Your task to perform on an android device: stop showing notifications on the lock screen Image 0: 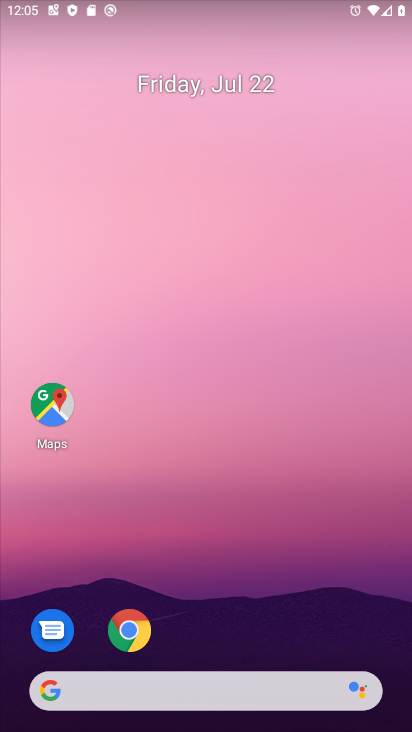
Step 0: drag from (243, 624) to (116, 114)
Your task to perform on an android device: stop showing notifications on the lock screen Image 1: 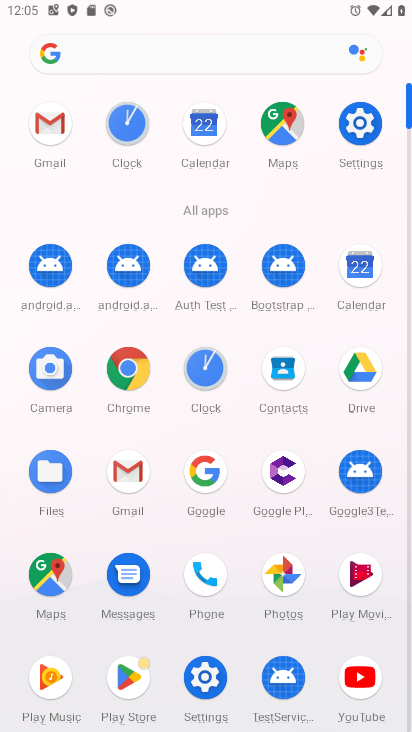
Step 1: click (361, 136)
Your task to perform on an android device: stop showing notifications on the lock screen Image 2: 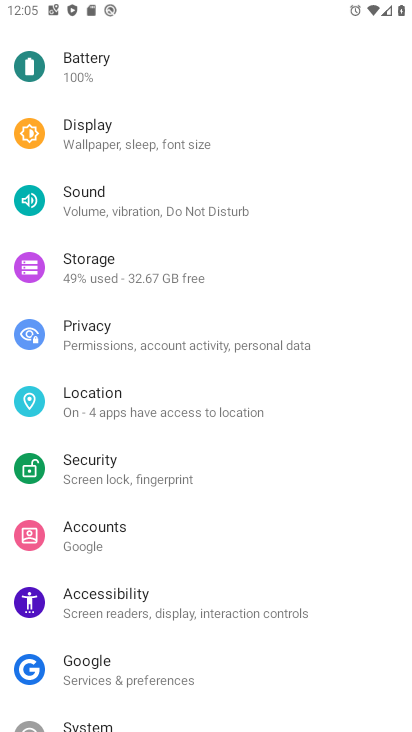
Step 2: drag from (243, 184) to (238, 439)
Your task to perform on an android device: stop showing notifications on the lock screen Image 3: 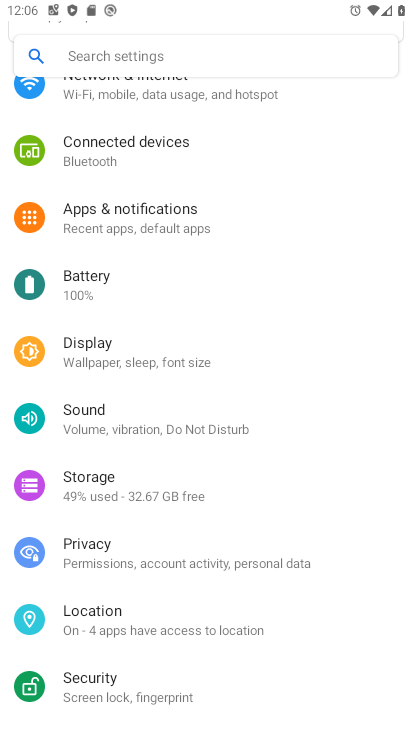
Step 3: click (167, 217)
Your task to perform on an android device: stop showing notifications on the lock screen Image 4: 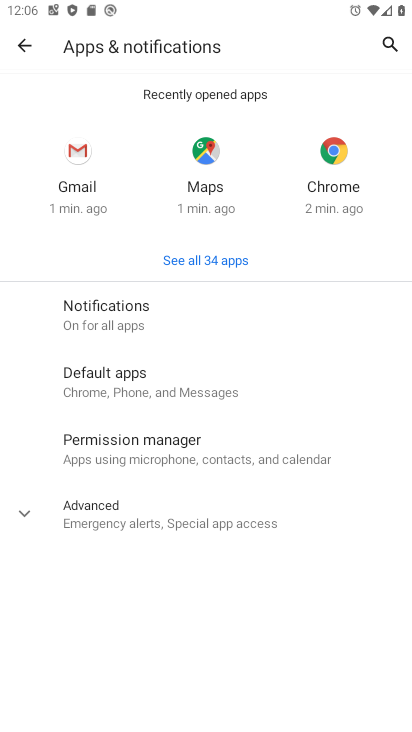
Step 4: click (111, 315)
Your task to perform on an android device: stop showing notifications on the lock screen Image 5: 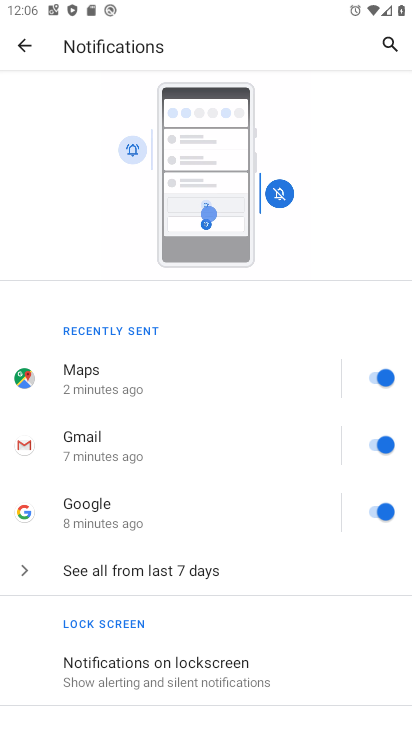
Step 5: drag from (146, 647) to (142, 325)
Your task to perform on an android device: stop showing notifications on the lock screen Image 6: 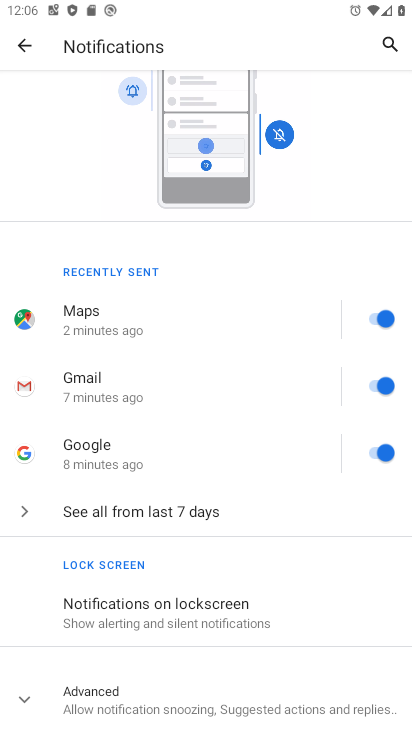
Step 6: click (126, 611)
Your task to perform on an android device: stop showing notifications on the lock screen Image 7: 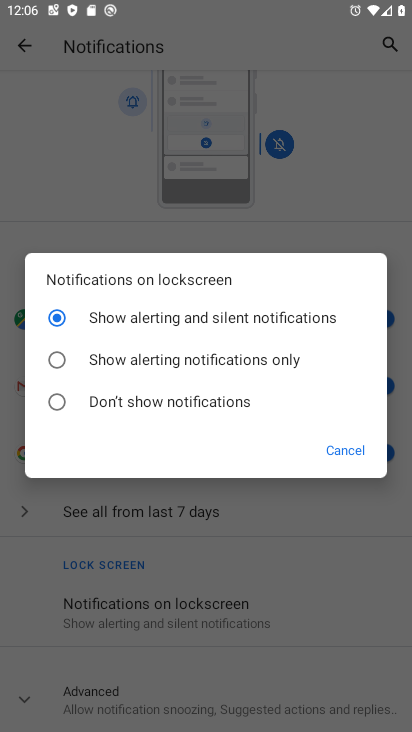
Step 7: click (126, 401)
Your task to perform on an android device: stop showing notifications on the lock screen Image 8: 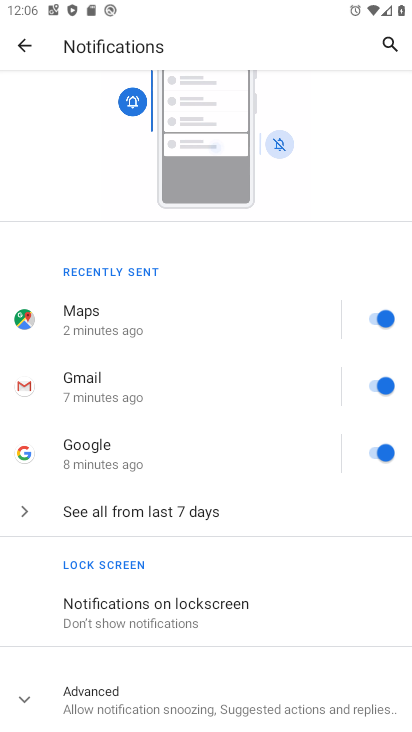
Step 8: task complete